Your task to perform on an android device: What's on my calendar today? Image 0: 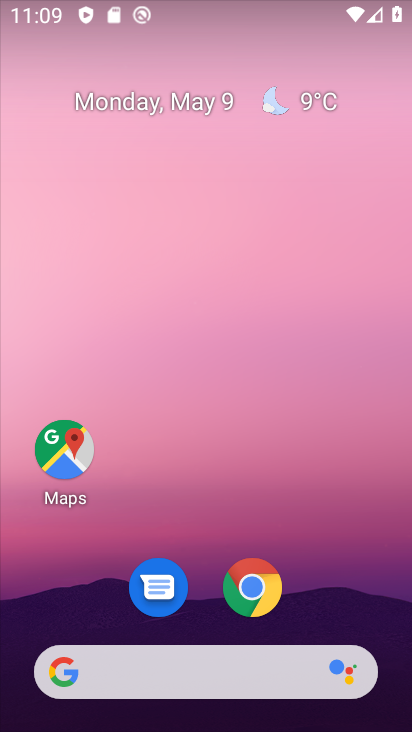
Step 0: drag from (228, 516) to (269, 227)
Your task to perform on an android device: What's on my calendar today? Image 1: 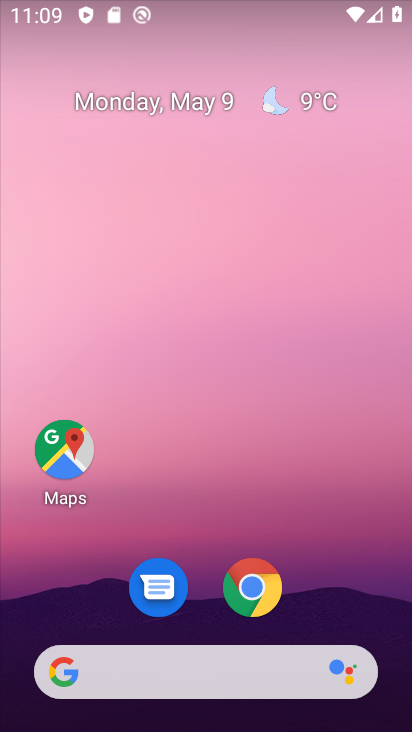
Step 1: drag from (282, 598) to (298, 303)
Your task to perform on an android device: What's on my calendar today? Image 2: 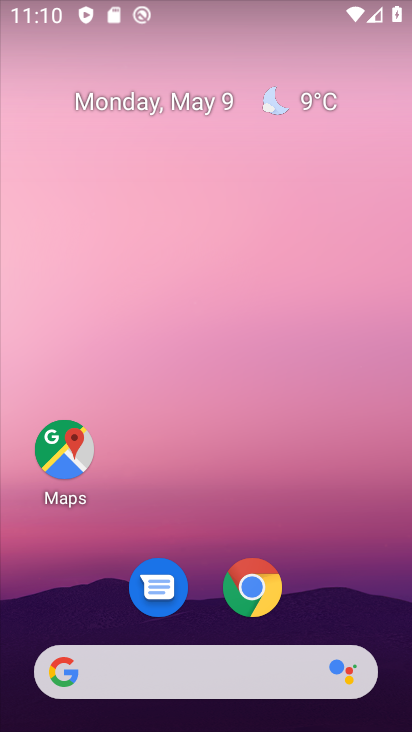
Step 2: drag from (206, 606) to (215, 177)
Your task to perform on an android device: What's on my calendar today? Image 3: 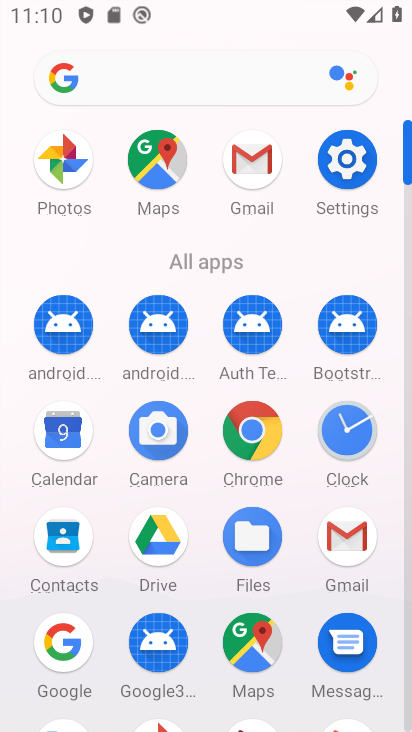
Step 3: click (60, 438)
Your task to perform on an android device: What's on my calendar today? Image 4: 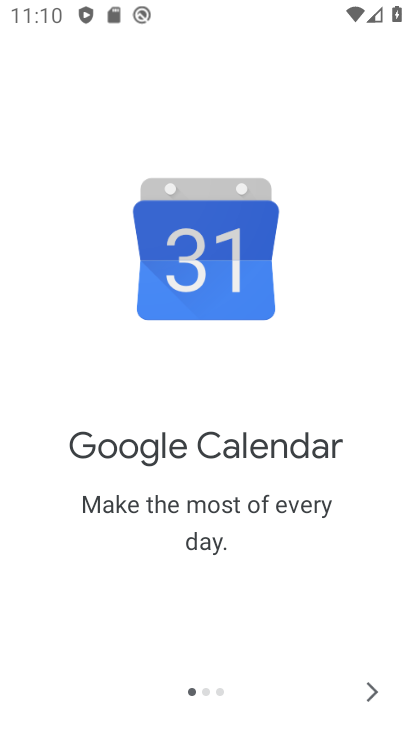
Step 4: click (371, 686)
Your task to perform on an android device: What's on my calendar today? Image 5: 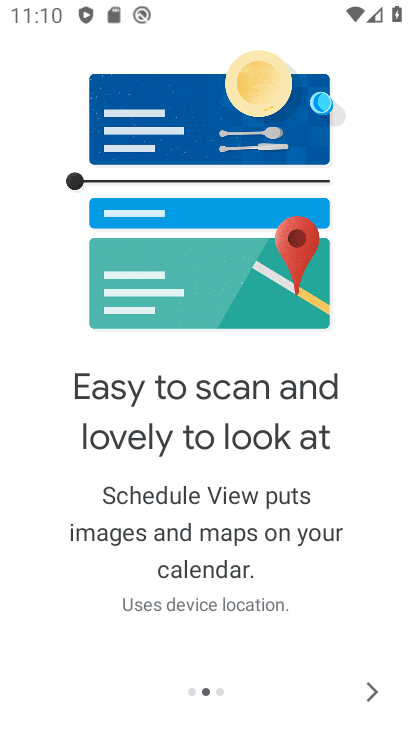
Step 5: click (368, 685)
Your task to perform on an android device: What's on my calendar today? Image 6: 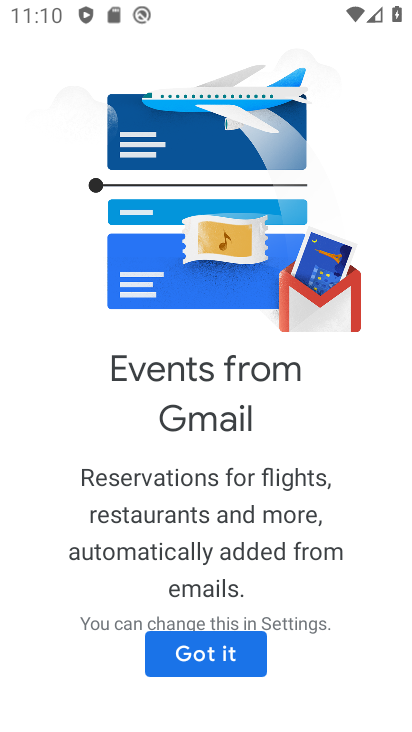
Step 6: click (218, 662)
Your task to perform on an android device: What's on my calendar today? Image 7: 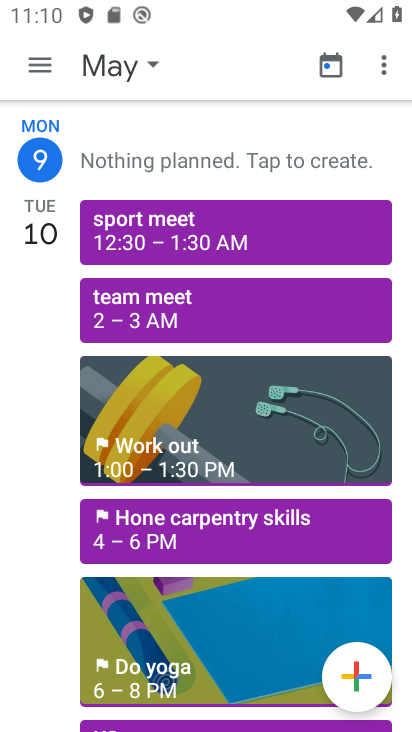
Step 7: click (138, 62)
Your task to perform on an android device: What's on my calendar today? Image 8: 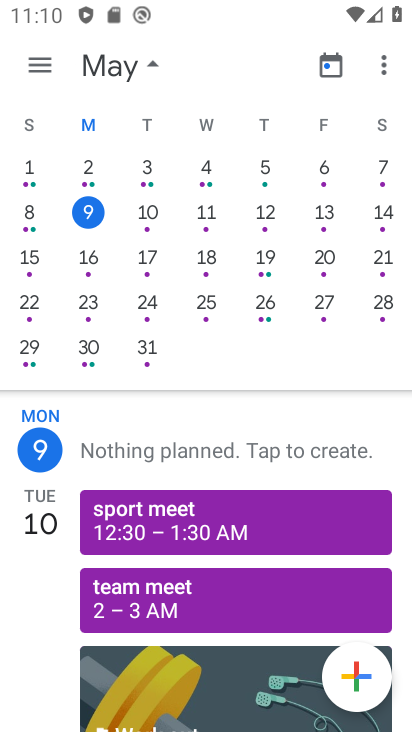
Step 8: task complete